Your task to perform on an android device: Open Wikipedia Image 0: 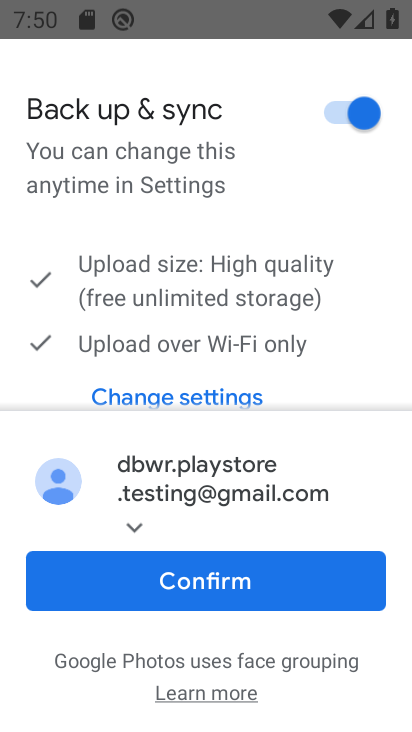
Step 0: press home button
Your task to perform on an android device: Open Wikipedia Image 1: 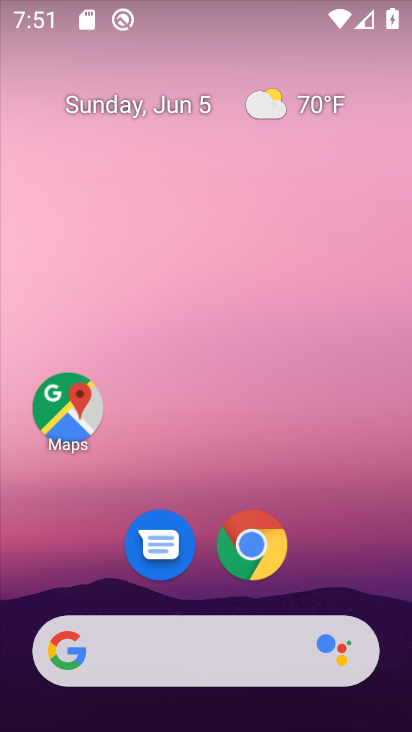
Step 1: click (251, 526)
Your task to perform on an android device: Open Wikipedia Image 2: 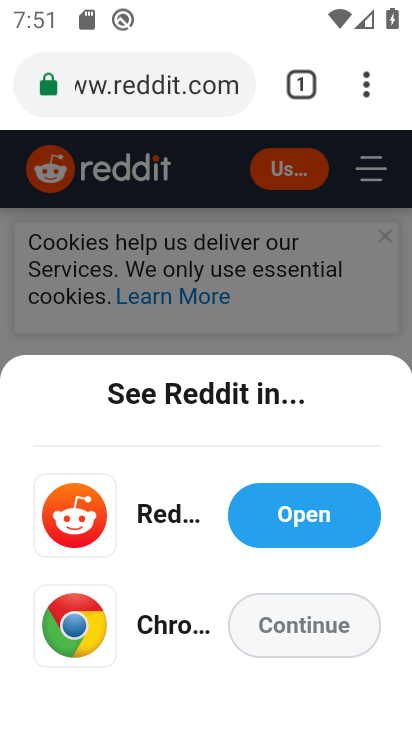
Step 2: click (201, 95)
Your task to perform on an android device: Open Wikipedia Image 3: 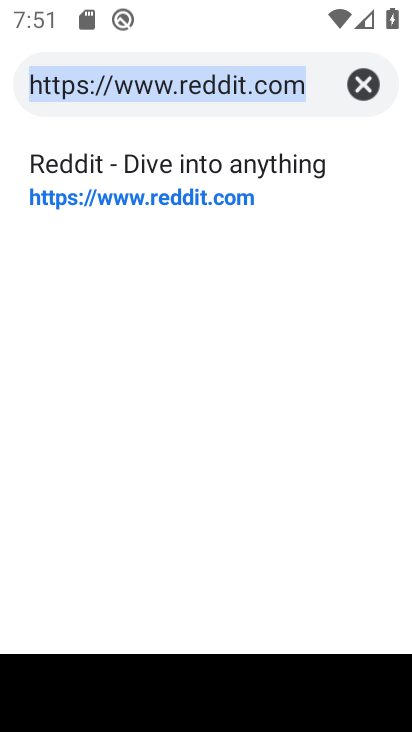
Step 3: type "wikipedia"
Your task to perform on an android device: Open Wikipedia Image 4: 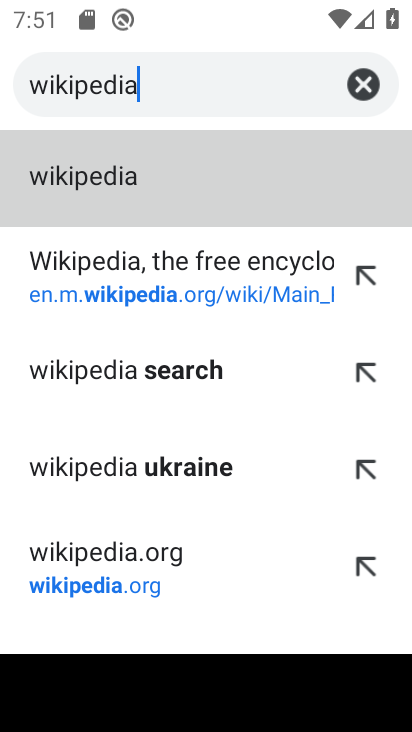
Step 4: click (255, 262)
Your task to perform on an android device: Open Wikipedia Image 5: 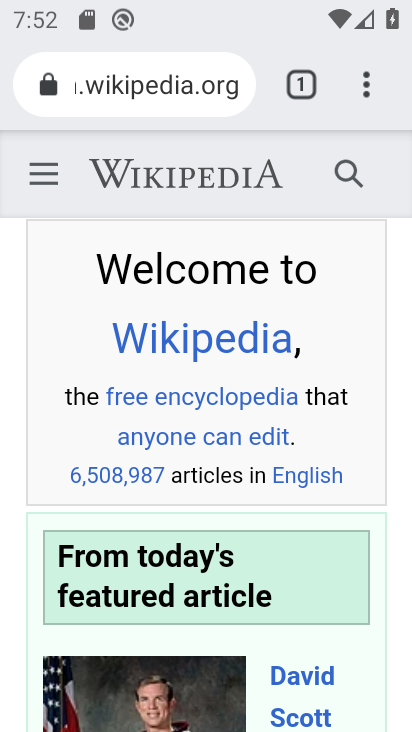
Step 5: task complete